Your task to perform on an android device: Go to Google Image 0: 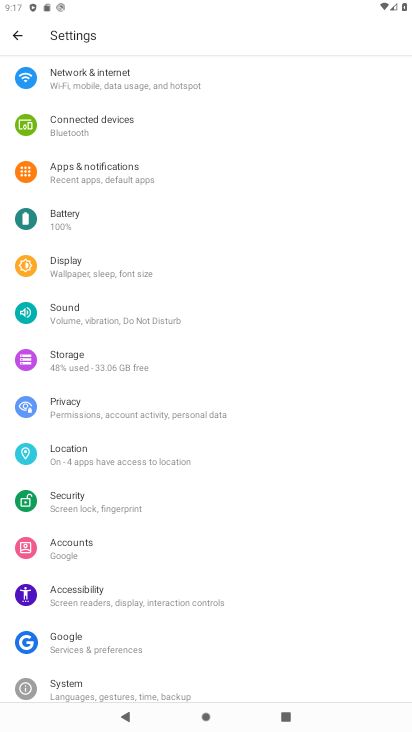
Step 0: press home button
Your task to perform on an android device: Go to Google Image 1: 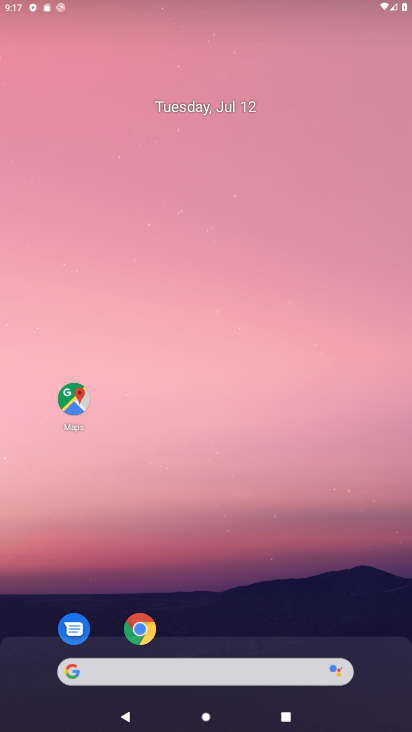
Step 1: drag from (248, 540) to (270, 43)
Your task to perform on an android device: Go to Google Image 2: 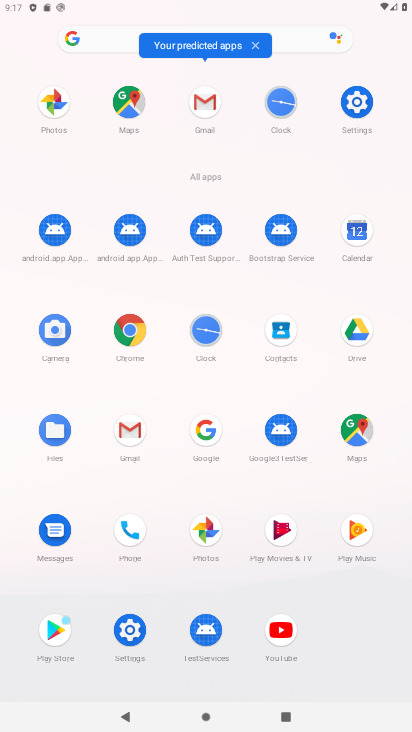
Step 2: click (135, 336)
Your task to perform on an android device: Go to Google Image 3: 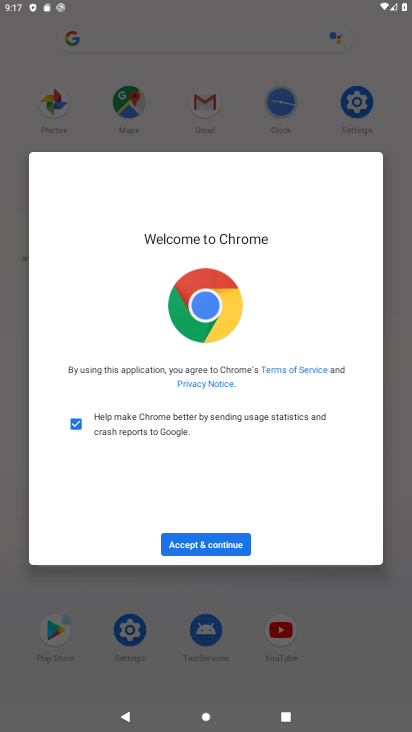
Step 3: click (208, 544)
Your task to perform on an android device: Go to Google Image 4: 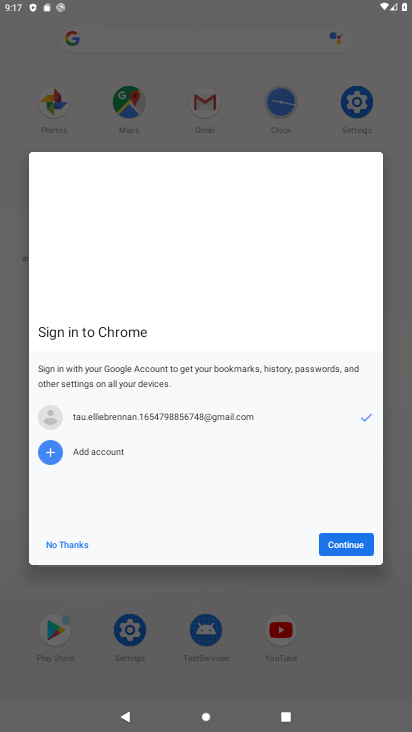
Step 4: click (340, 551)
Your task to perform on an android device: Go to Google Image 5: 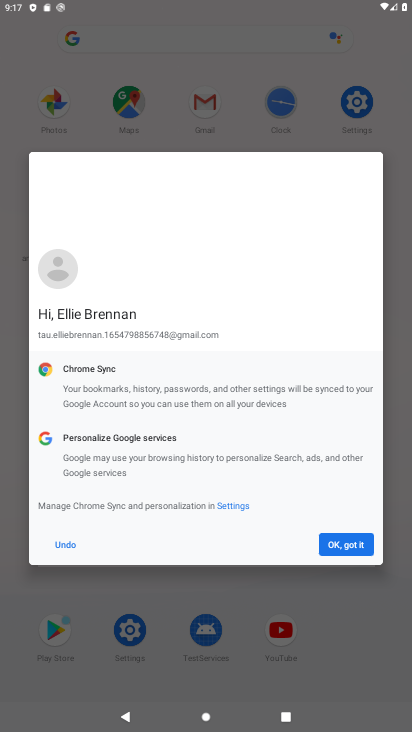
Step 5: click (54, 539)
Your task to perform on an android device: Go to Google Image 6: 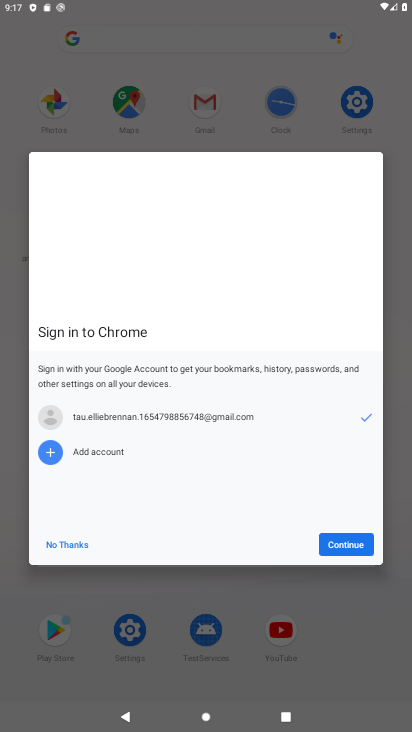
Step 6: click (74, 548)
Your task to perform on an android device: Go to Google Image 7: 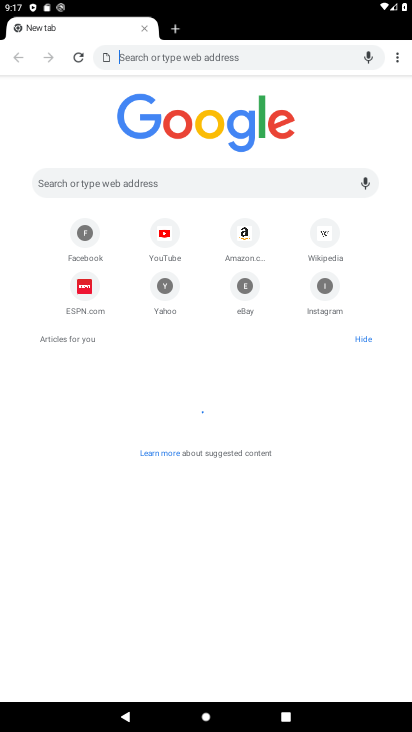
Step 7: task complete